Your task to perform on an android device: turn off location Image 0: 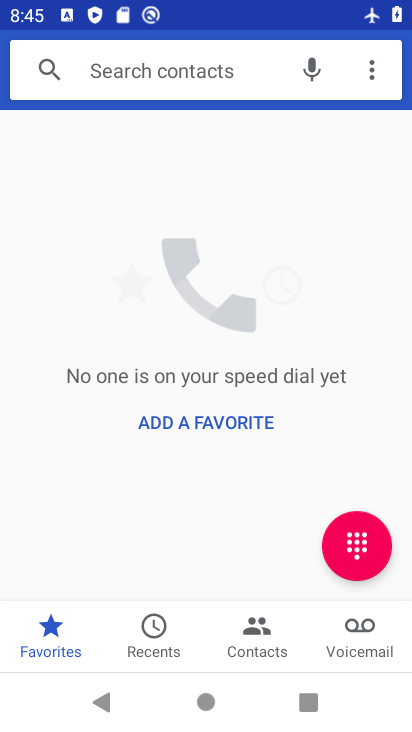
Step 0: press home button
Your task to perform on an android device: turn off location Image 1: 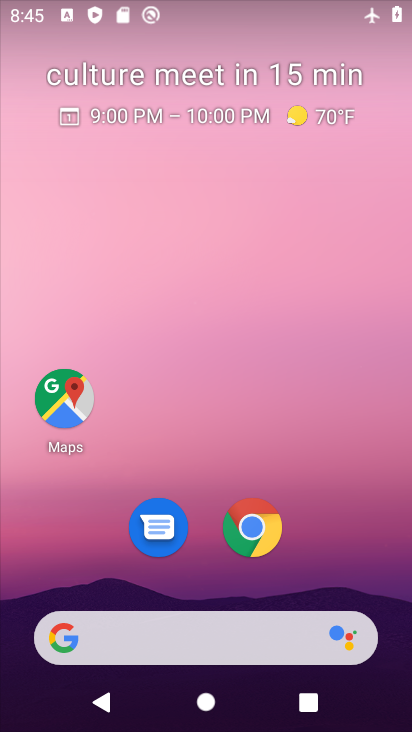
Step 1: drag from (239, 489) to (260, 210)
Your task to perform on an android device: turn off location Image 2: 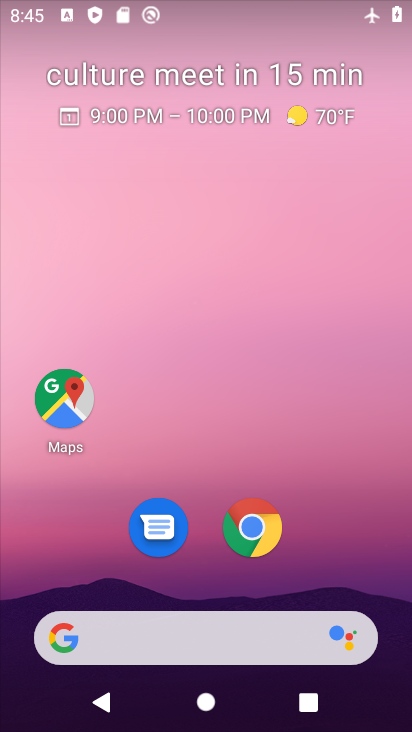
Step 2: drag from (220, 587) to (239, 230)
Your task to perform on an android device: turn off location Image 3: 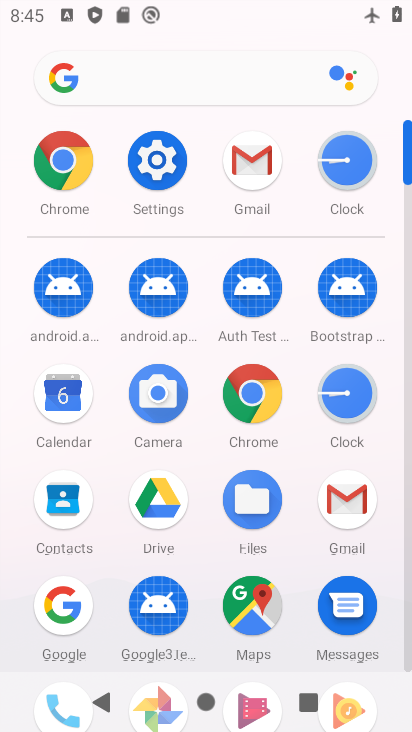
Step 3: click (169, 190)
Your task to perform on an android device: turn off location Image 4: 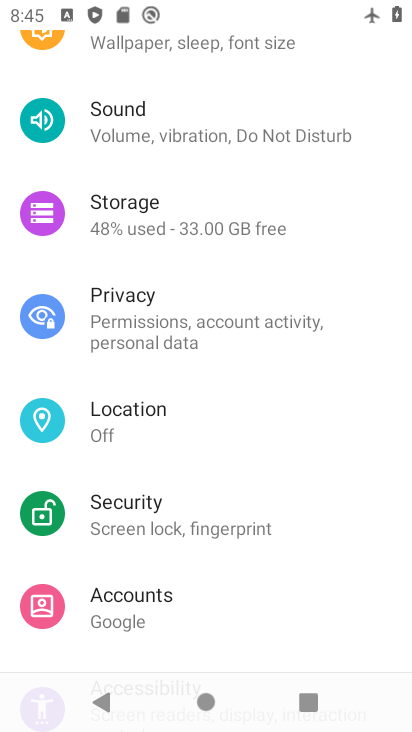
Step 4: click (107, 433)
Your task to perform on an android device: turn off location Image 5: 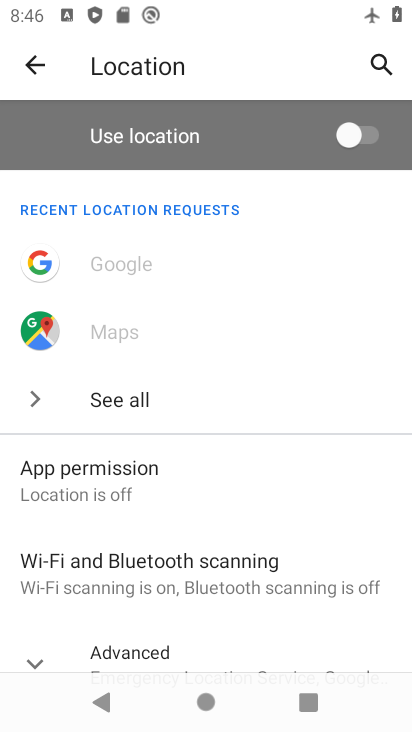
Step 5: task complete